Your task to perform on an android device: set default search engine in the chrome app Image 0: 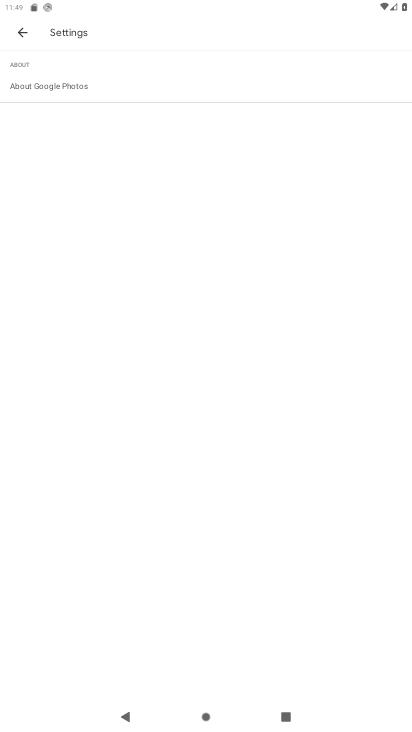
Step 0: press home button
Your task to perform on an android device: set default search engine in the chrome app Image 1: 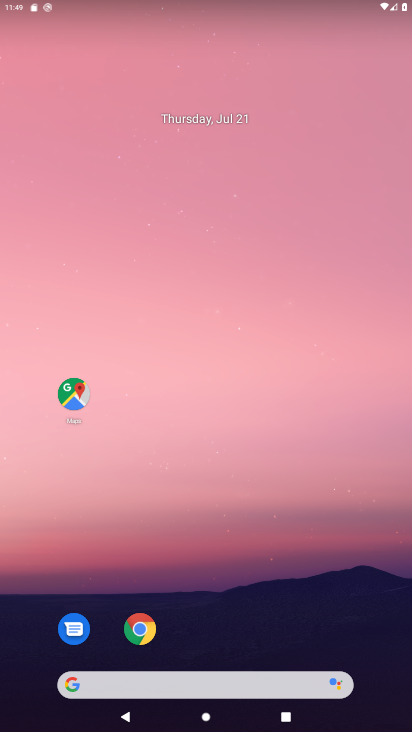
Step 1: click (150, 625)
Your task to perform on an android device: set default search engine in the chrome app Image 2: 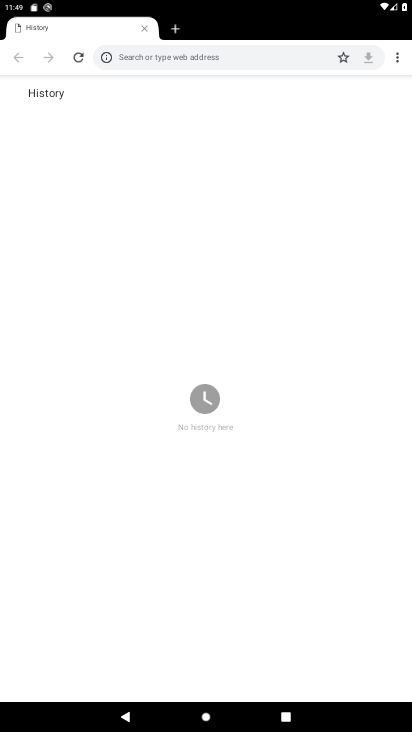
Step 2: press home button
Your task to perform on an android device: set default search engine in the chrome app Image 3: 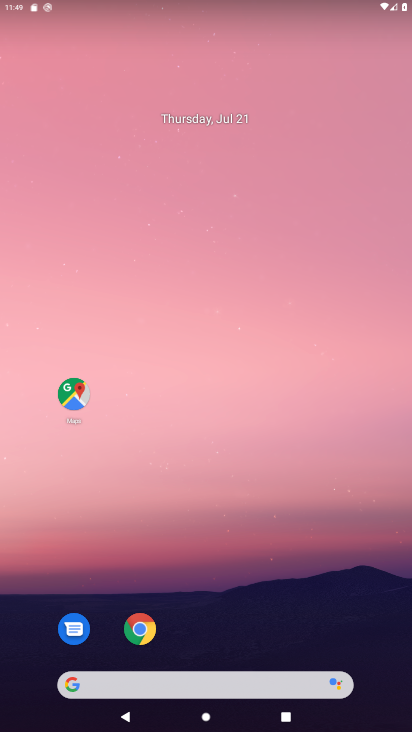
Step 3: click (131, 630)
Your task to perform on an android device: set default search engine in the chrome app Image 4: 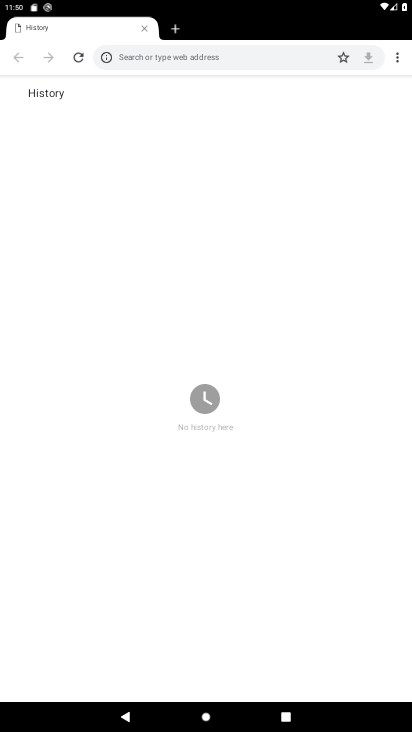
Step 4: click (396, 58)
Your task to perform on an android device: set default search engine in the chrome app Image 5: 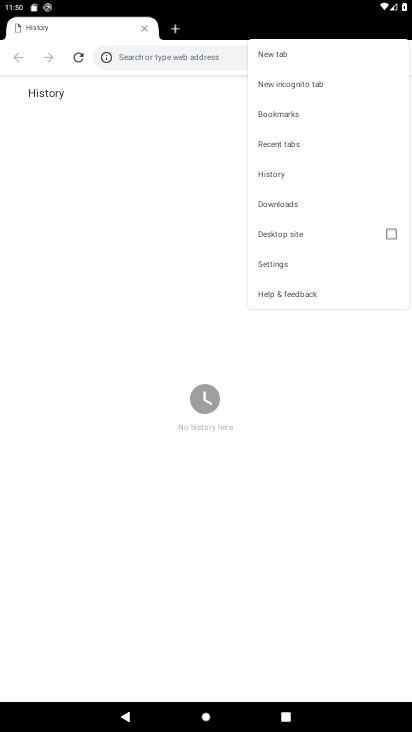
Step 5: click (276, 259)
Your task to perform on an android device: set default search engine in the chrome app Image 6: 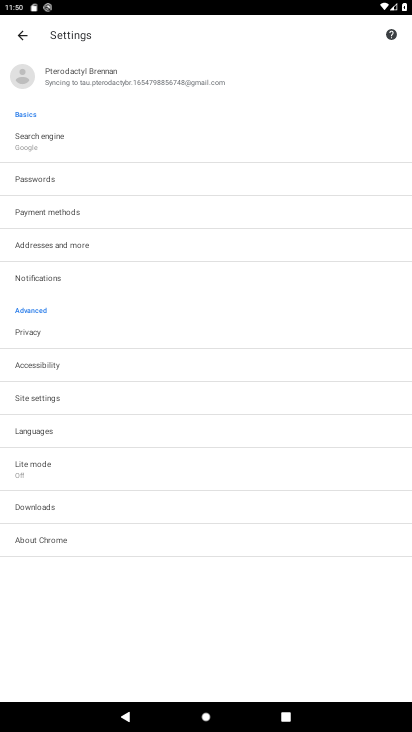
Step 6: click (61, 142)
Your task to perform on an android device: set default search engine in the chrome app Image 7: 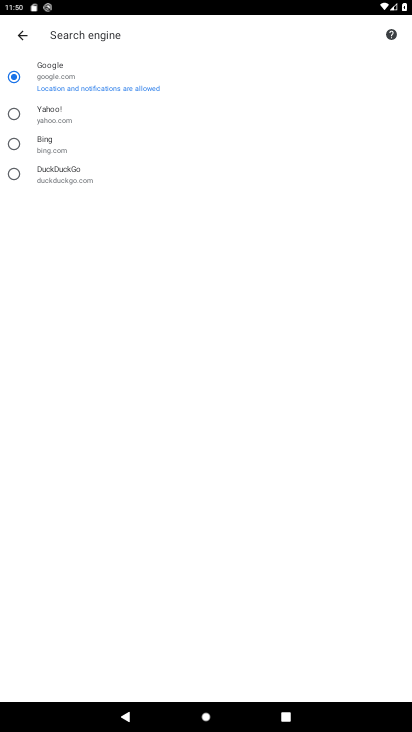
Step 7: click (146, 84)
Your task to perform on an android device: set default search engine in the chrome app Image 8: 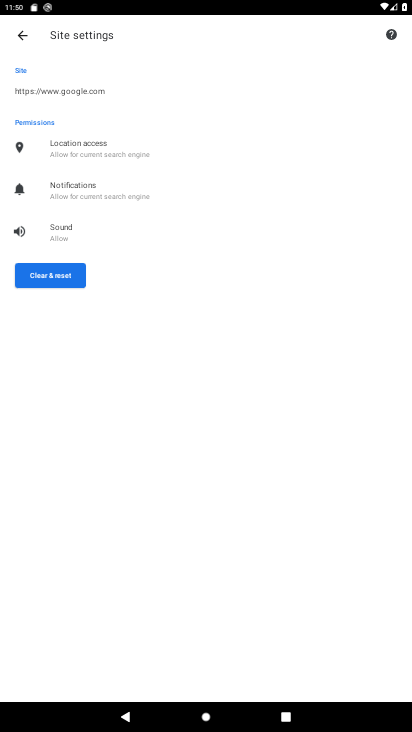
Step 8: click (50, 280)
Your task to perform on an android device: set default search engine in the chrome app Image 9: 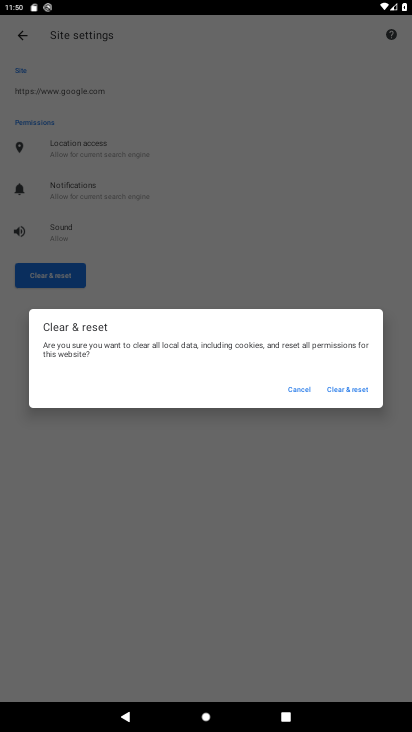
Step 9: click (360, 392)
Your task to perform on an android device: set default search engine in the chrome app Image 10: 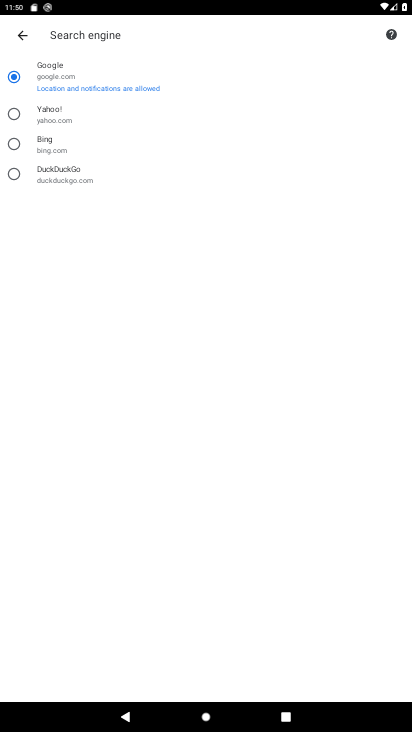
Step 10: task complete